Your task to perform on an android device: visit the assistant section in the google photos Image 0: 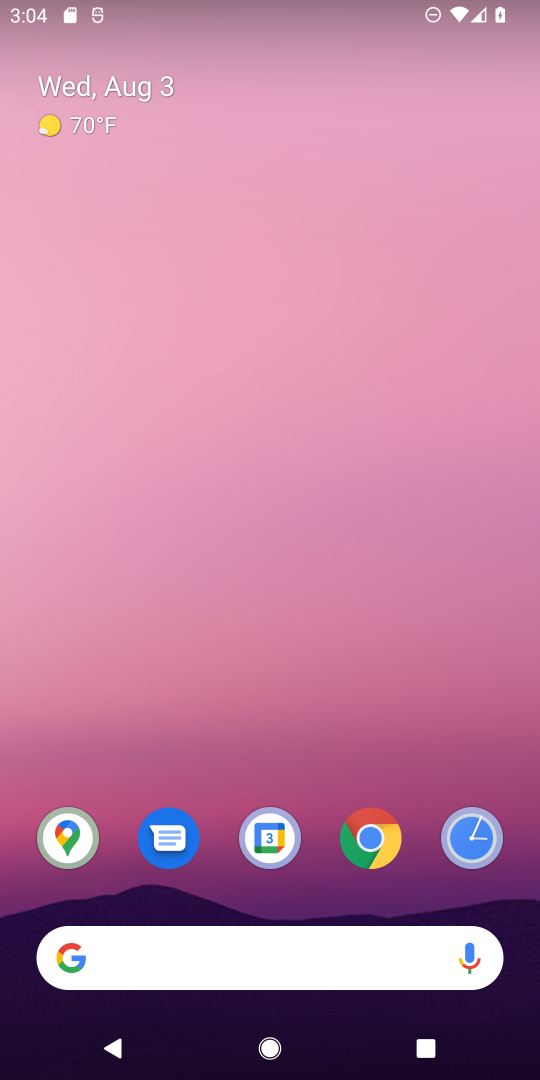
Step 0: drag from (271, 740) to (311, 233)
Your task to perform on an android device: visit the assistant section in the google photos Image 1: 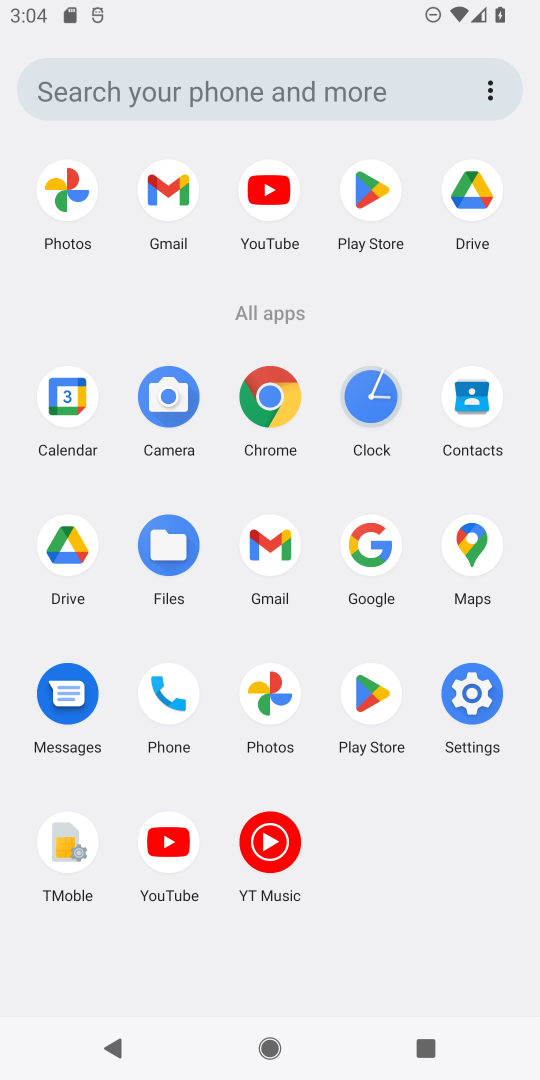
Step 1: click (272, 687)
Your task to perform on an android device: visit the assistant section in the google photos Image 2: 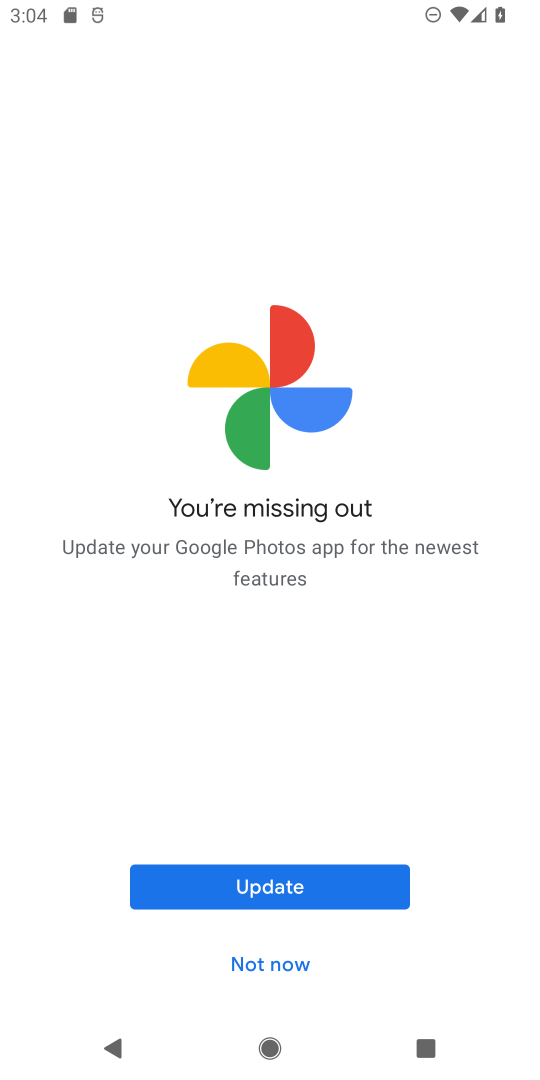
Step 2: click (256, 895)
Your task to perform on an android device: visit the assistant section in the google photos Image 3: 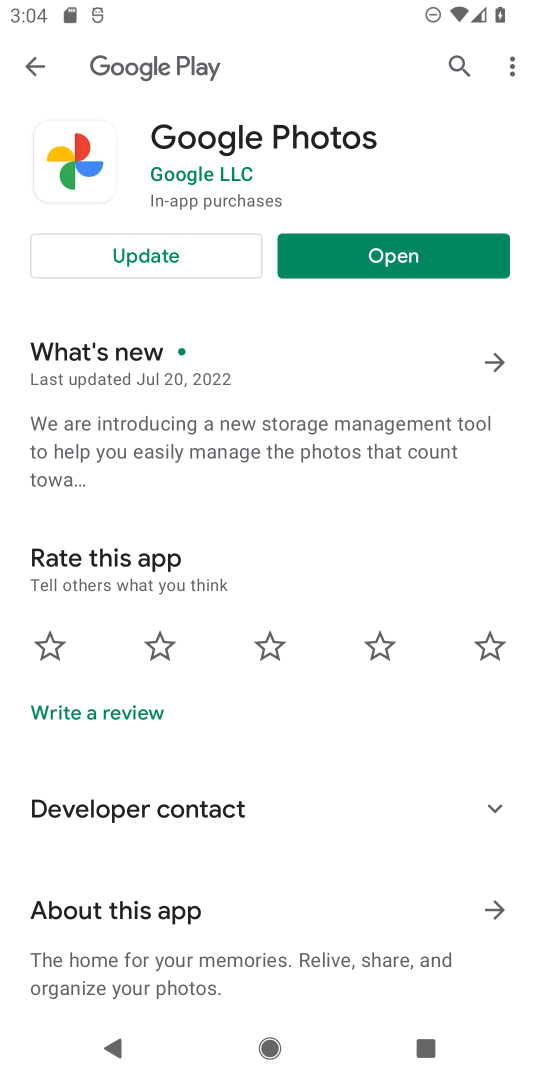
Step 3: click (162, 257)
Your task to perform on an android device: visit the assistant section in the google photos Image 4: 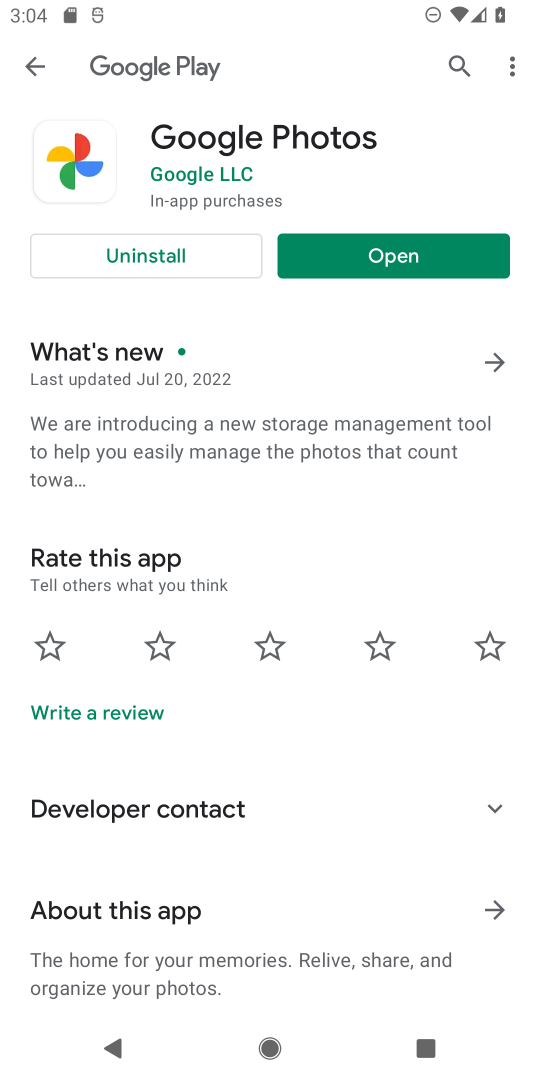
Step 4: click (319, 262)
Your task to perform on an android device: visit the assistant section in the google photos Image 5: 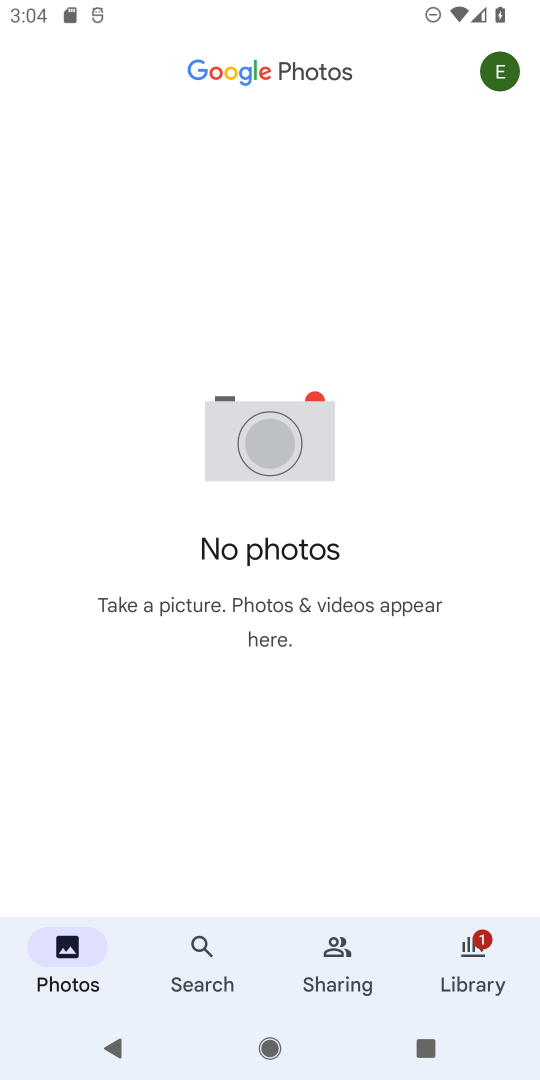
Step 5: click (165, 965)
Your task to perform on an android device: visit the assistant section in the google photos Image 6: 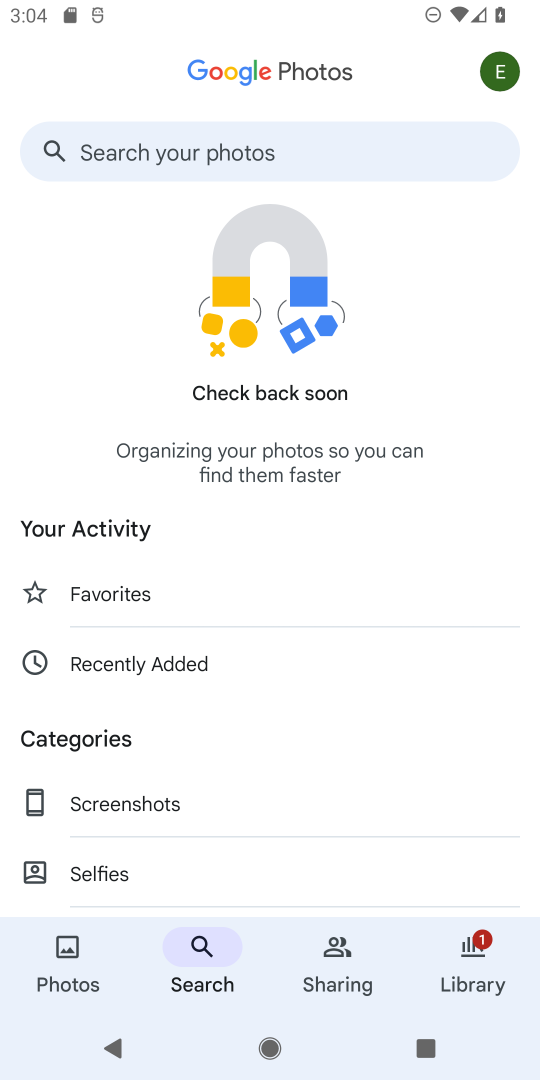
Step 6: drag from (243, 832) to (223, 334)
Your task to perform on an android device: visit the assistant section in the google photos Image 7: 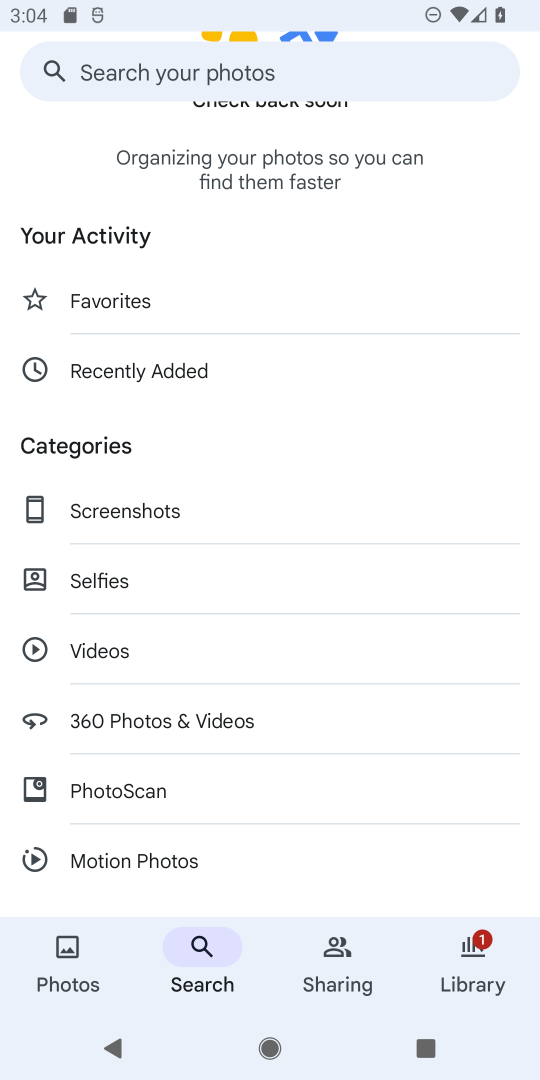
Step 7: drag from (186, 618) to (188, 175)
Your task to perform on an android device: visit the assistant section in the google photos Image 8: 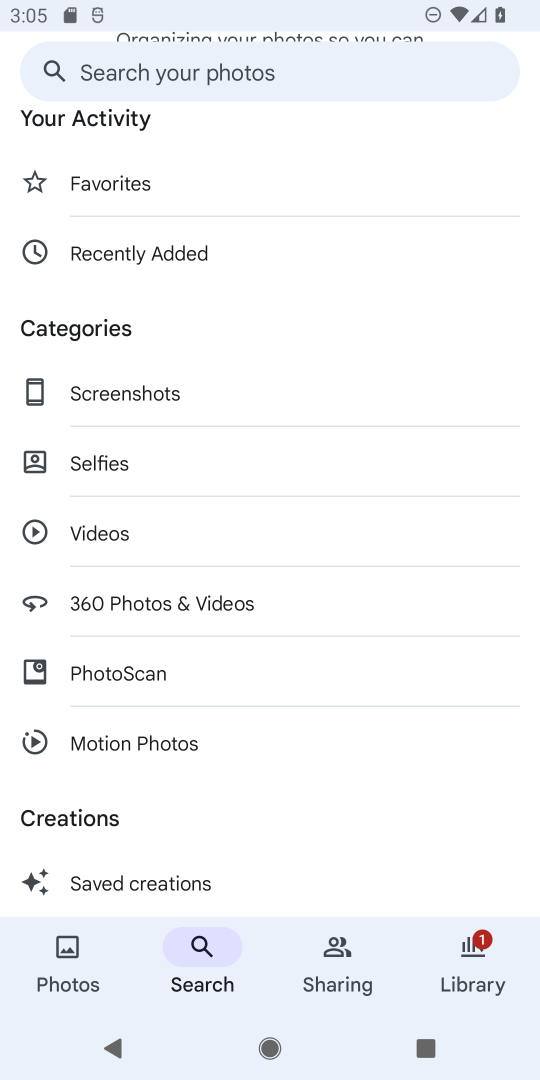
Step 8: drag from (252, 647) to (246, 42)
Your task to perform on an android device: visit the assistant section in the google photos Image 9: 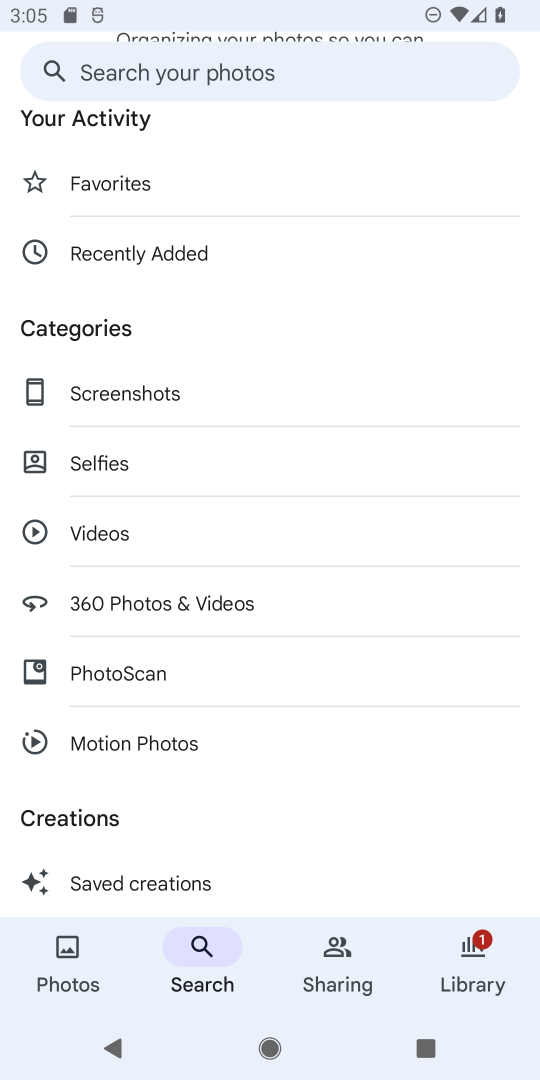
Step 9: click (322, 959)
Your task to perform on an android device: visit the assistant section in the google photos Image 10: 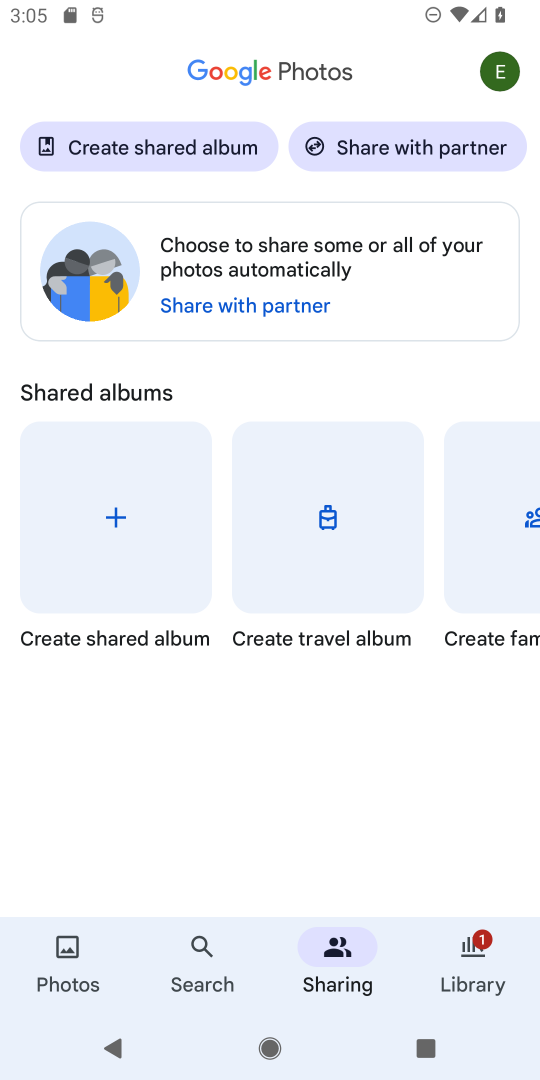
Step 10: click (322, 959)
Your task to perform on an android device: visit the assistant section in the google photos Image 11: 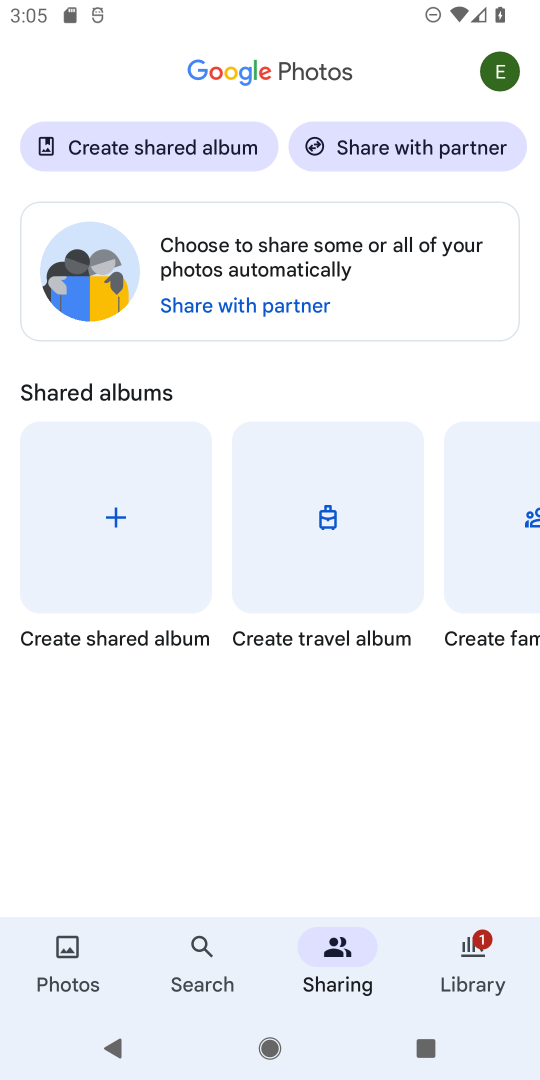
Step 11: click (470, 966)
Your task to perform on an android device: visit the assistant section in the google photos Image 12: 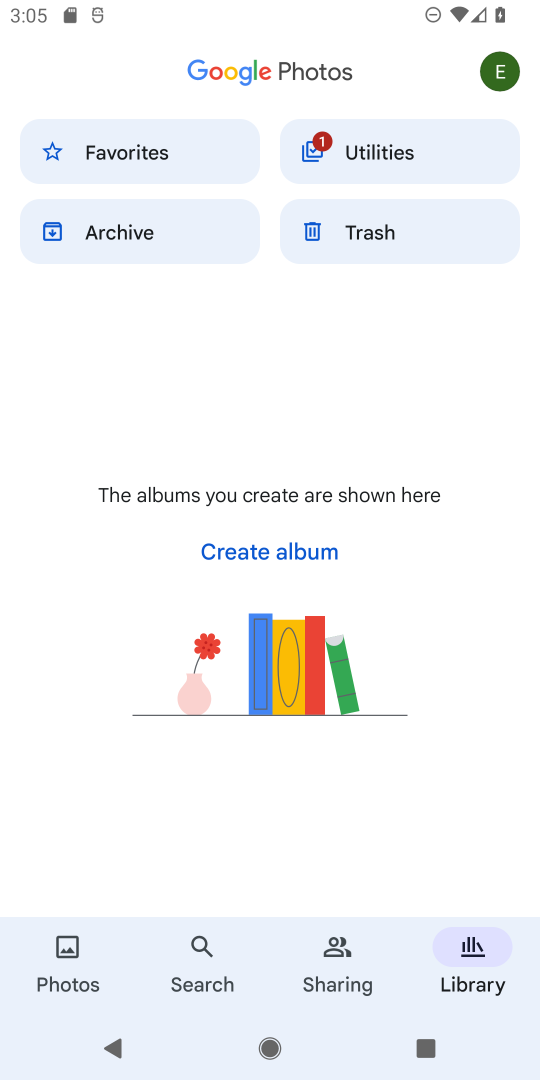
Step 12: click (508, 78)
Your task to perform on an android device: visit the assistant section in the google photos Image 13: 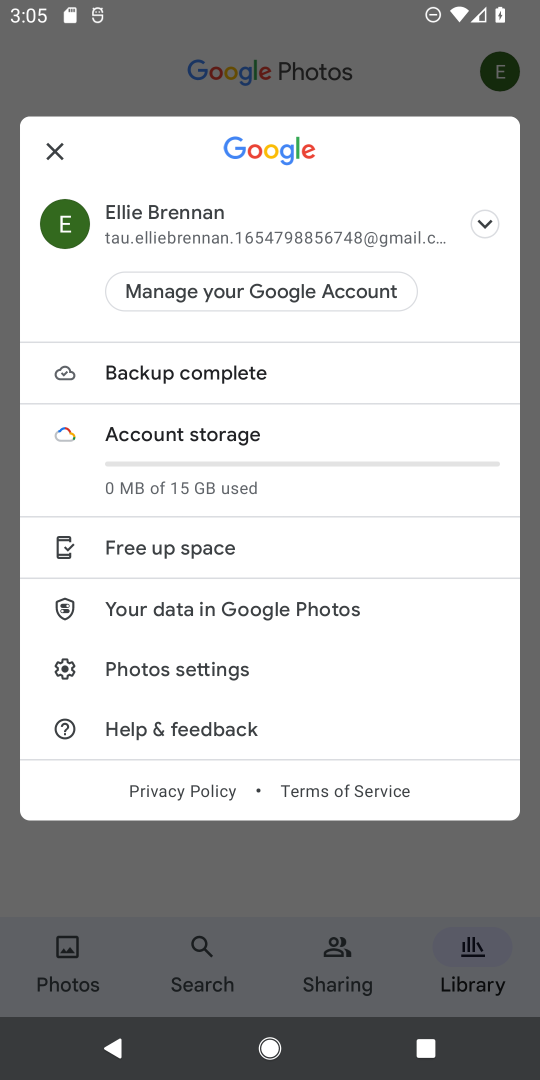
Step 13: task complete